Your task to perform on an android device: refresh tabs in the chrome app Image 0: 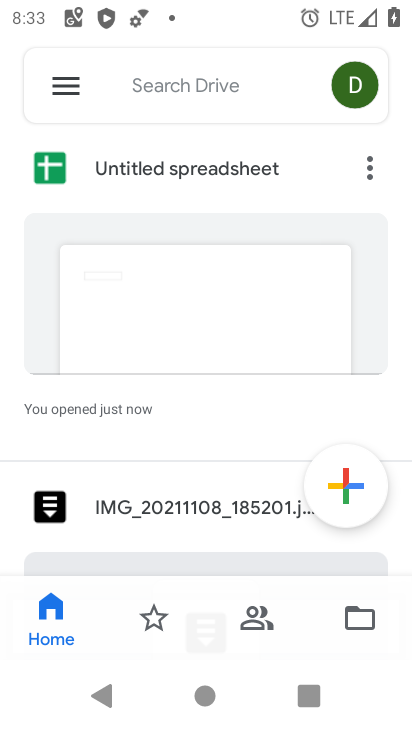
Step 0: press home button
Your task to perform on an android device: refresh tabs in the chrome app Image 1: 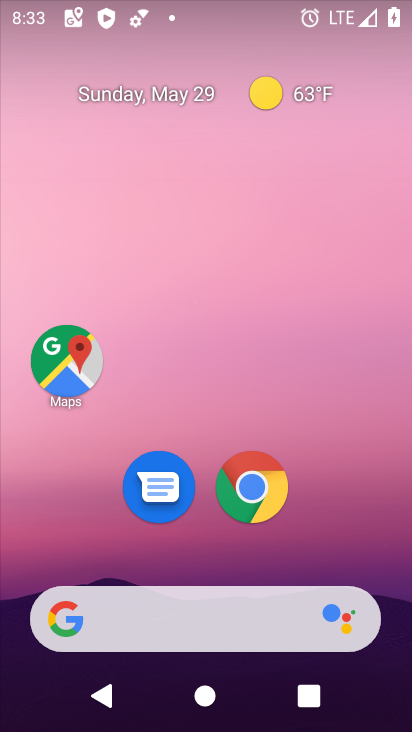
Step 1: drag from (256, 682) to (270, 186)
Your task to perform on an android device: refresh tabs in the chrome app Image 2: 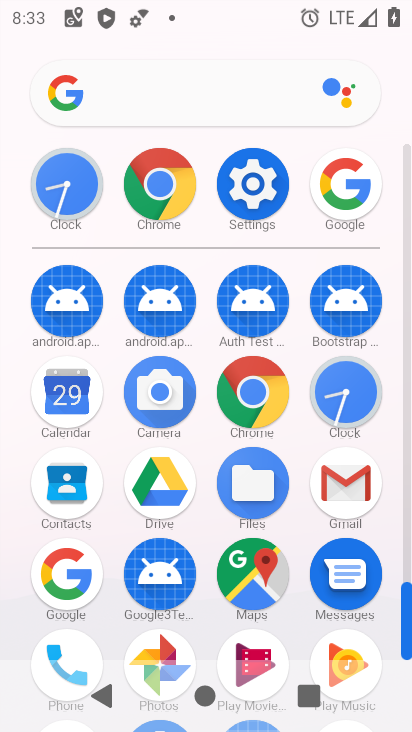
Step 2: click (178, 201)
Your task to perform on an android device: refresh tabs in the chrome app Image 3: 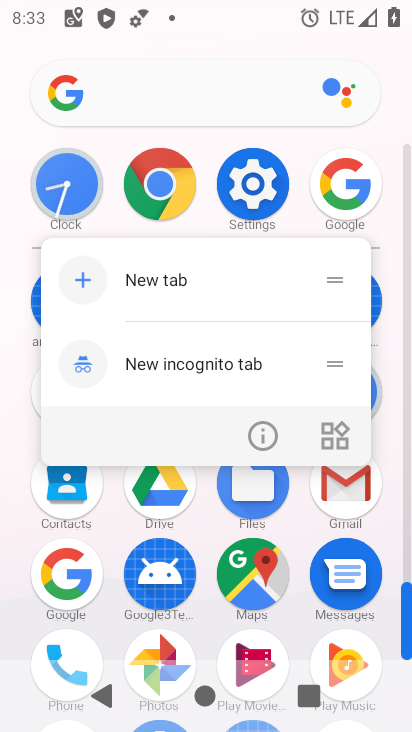
Step 3: click (177, 173)
Your task to perform on an android device: refresh tabs in the chrome app Image 4: 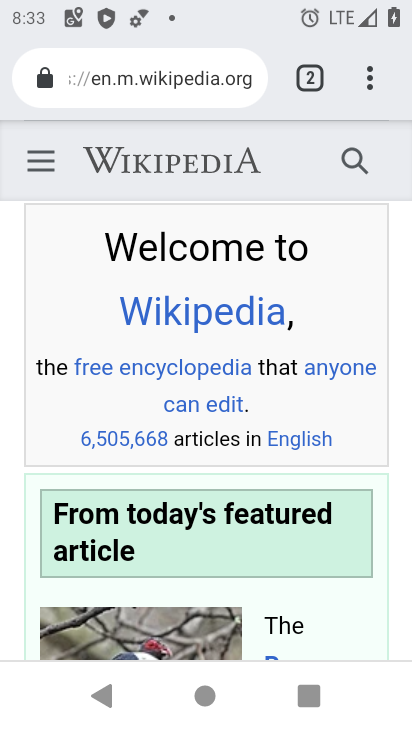
Step 4: click (373, 78)
Your task to perform on an android device: refresh tabs in the chrome app Image 5: 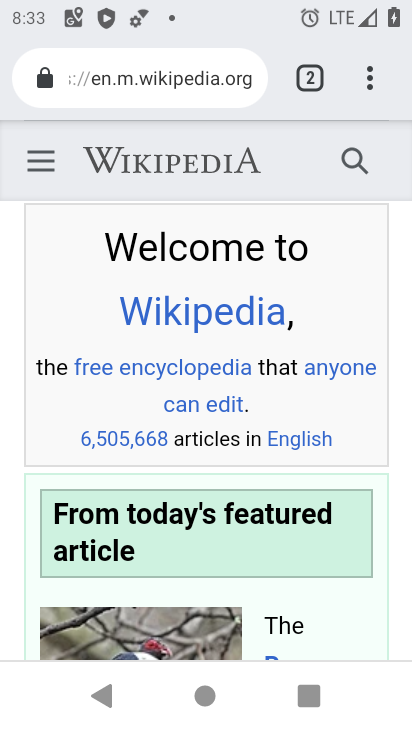
Step 5: click (373, 78)
Your task to perform on an android device: refresh tabs in the chrome app Image 6: 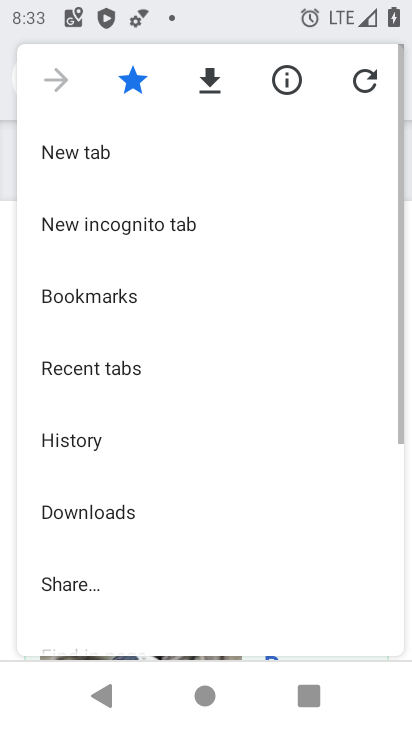
Step 6: click (370, 80)
Your task to perform on an android device: refresh tabs in the chrome app Image 7: 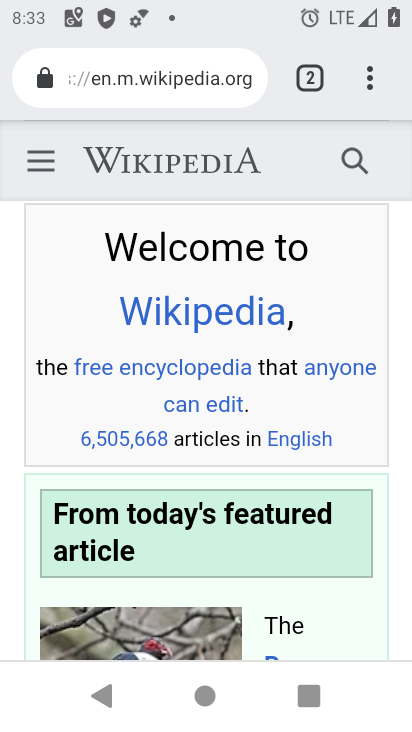
Step 7: task complete